Your task to perform on an android device: Go to Yahoo.com Image 0: 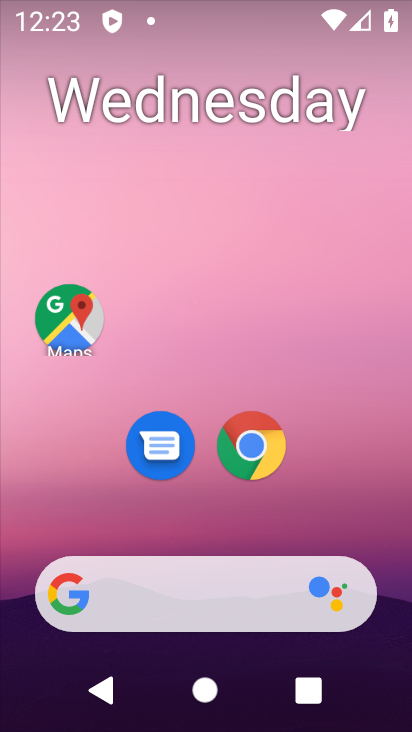
Step 0: click (251, 458)
Your task to perform on an android device: Go to Yahoo.com Image 1: 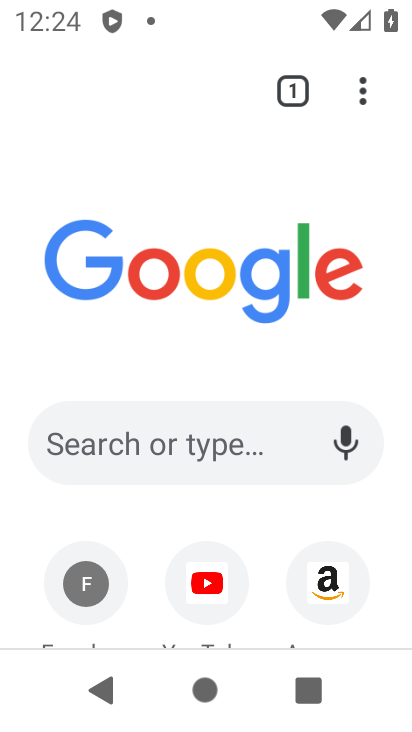
Step 1: drag from (310, 583) to (229, 158)
Your task to perform on an android device: Go to Yahoo.com Image 2: 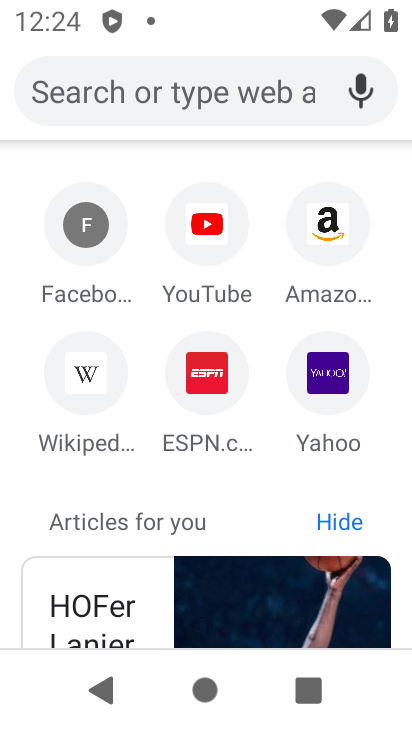
Step 2: click (325, 389)
Your task to perform on an android device: Go to Yahoo.com Image 3: 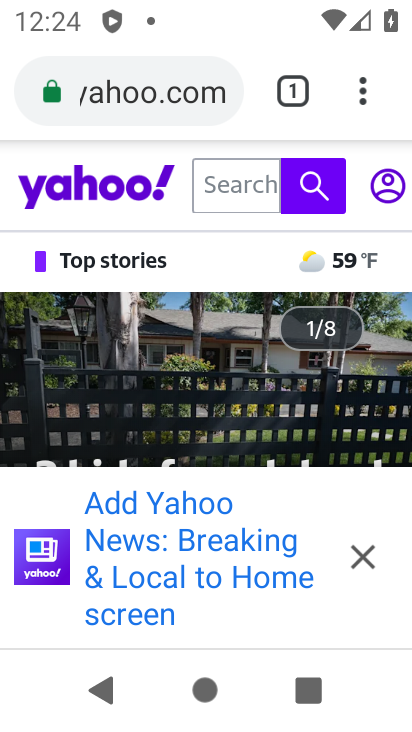
Step 3: task complete